Your task to perform on an android device: open chrome privacy settings Image 0: 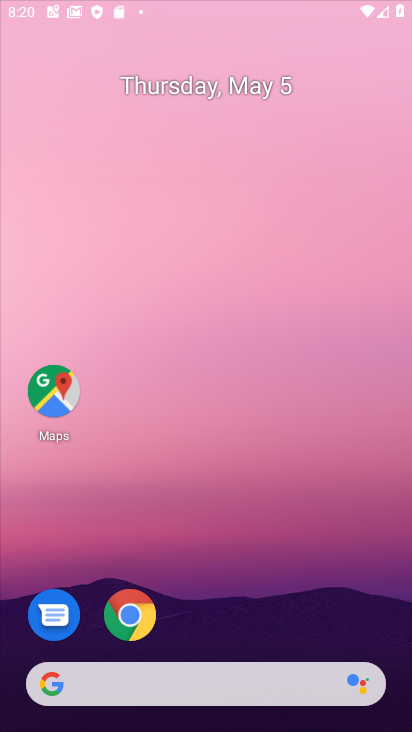
Step 0: click (265, 504)
Your task to perform on an android device: open chrome privacy settings Image 1: 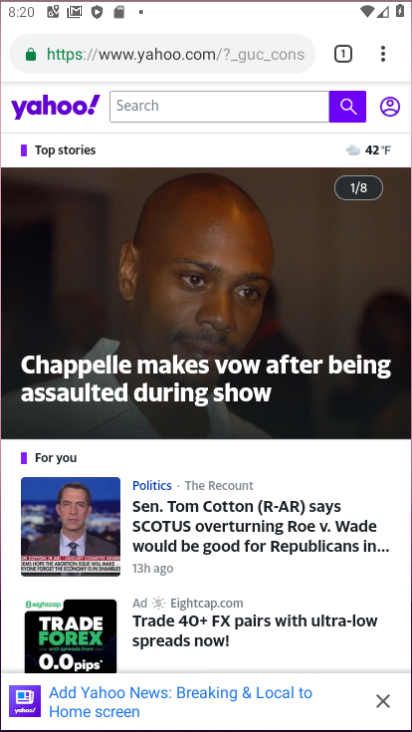
Step 1: click (142, 621)
Your task to perform on an android device: open chrome privacy settings Image 2: 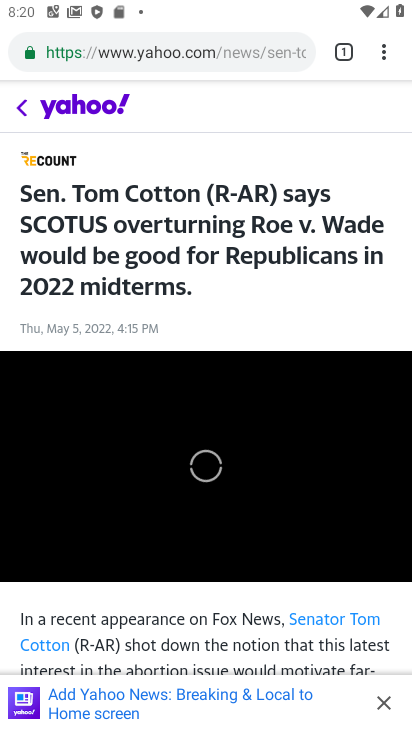
Step 2: click (378, 47)
Your task to perform on an android device: open chrome privacy settings Image 3: 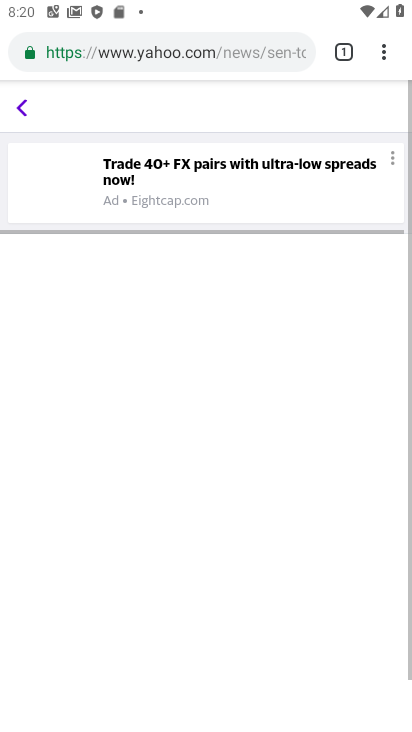
Step 3: click (387, 57)
Your task to perform on an android device: open chrome privacy settings Image 4: 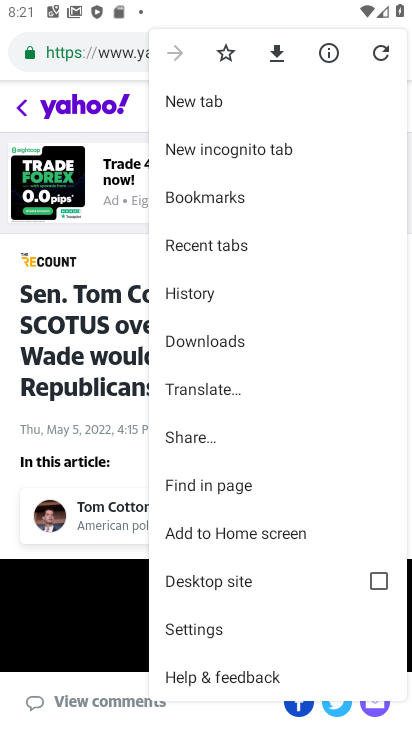
Step 4: click (192, 637)
Your task to perform on an android device: open chrome privacy settings Image 5: 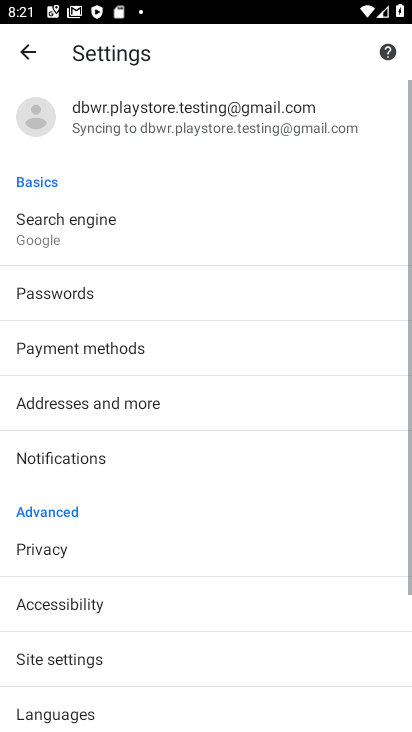
Step 5: click (43, 559)
Your task to perform on an android device: open chrome privacy settings Image 6: 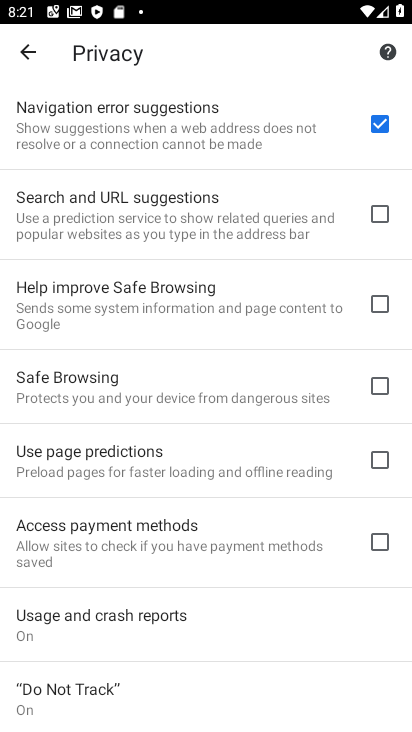
Step 6: task complete